Your task to perform on an android device: Open settings on Google Maps Image 0: 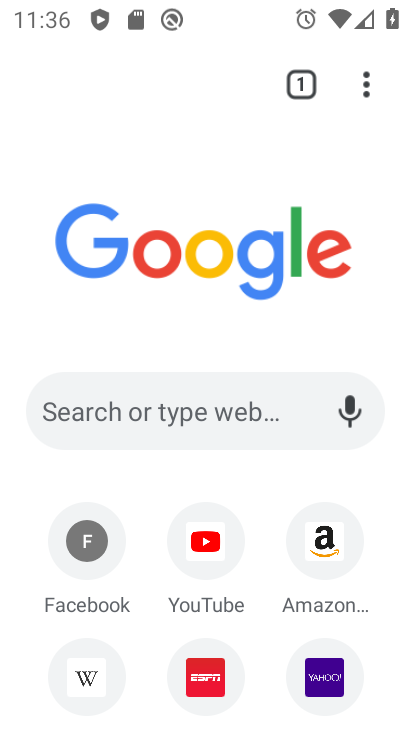
Step 0: press home button
Your task to perform on an android device: Open settings on Google Maps Image 1: 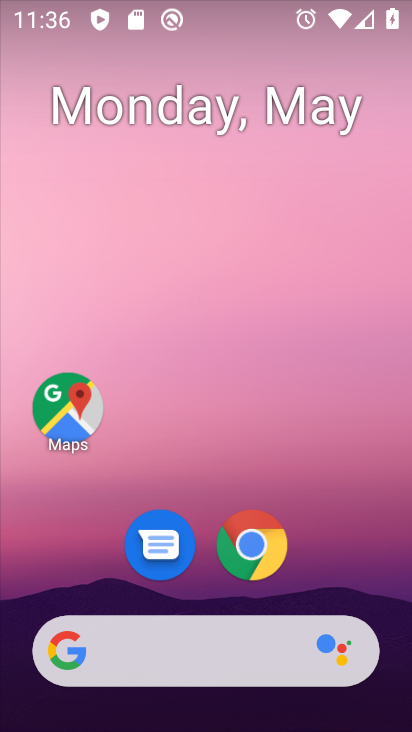
Step 1: click (82, 405)
Your task to perform on an android device: Open settings on Google Maps Image 2: 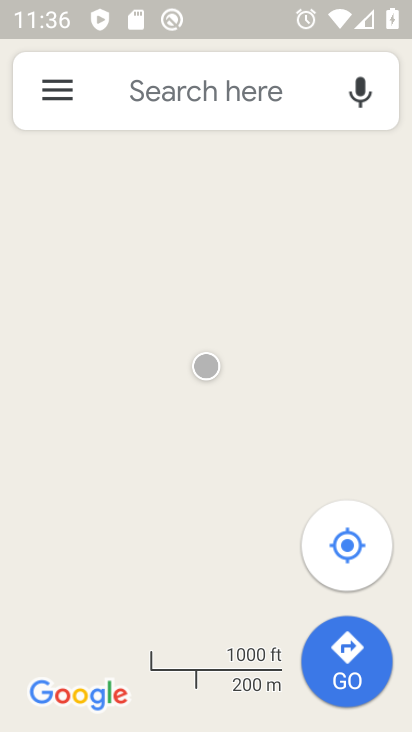
Step 2: click (54, 91)
Your task to perform on an android device: Open settings on Google Maps Image 3: 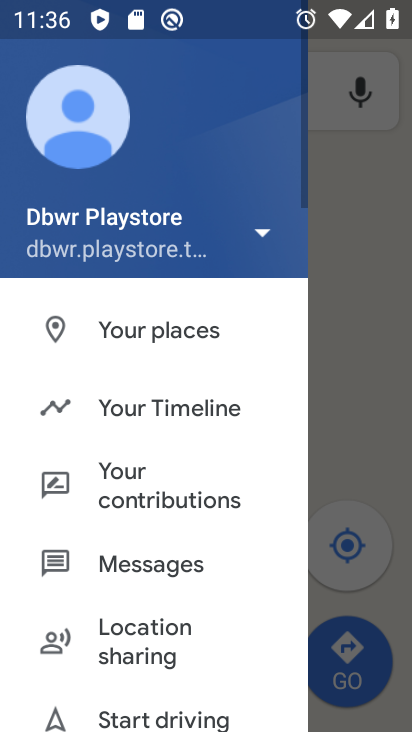
Step 3: drag from (149, 682) to (110, 343)
Your task to perform on an android device: Open settings on Google Maps Image 4: 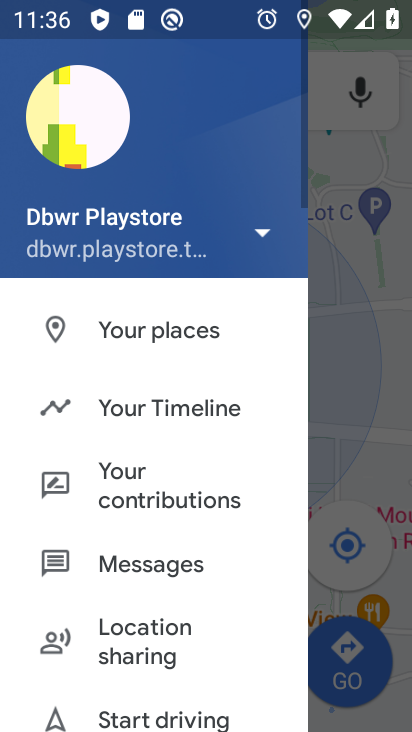
Step 4: drag from (147, 645) to (135, 346)
Your task to perform on an android device: Open settings on Google Maps Image 5: 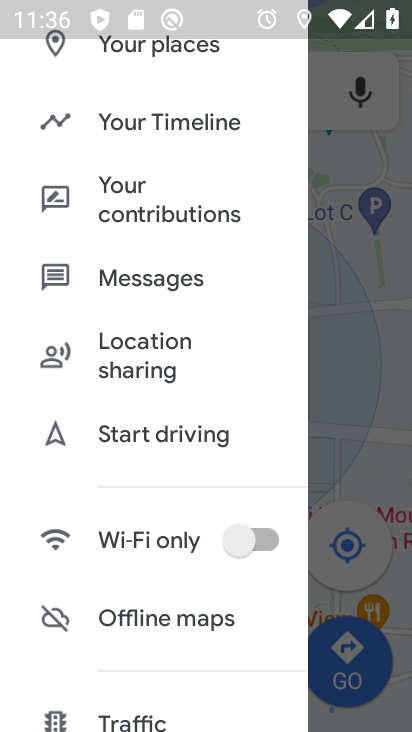
Step 5: drag from (128, 717) to (151, 272)
Your task to perform on an android device: Open settings on Google Maps Image 6: 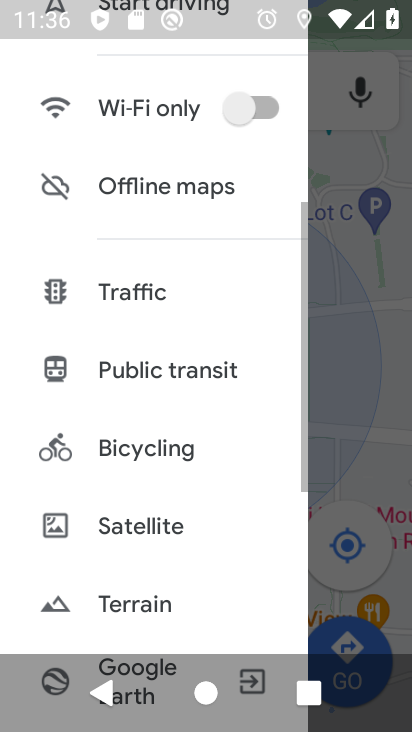
Step 6: drag from (170, 626) to (167, 244)
Your task to perform on an android device: Open settings on Google Maps Image 7: 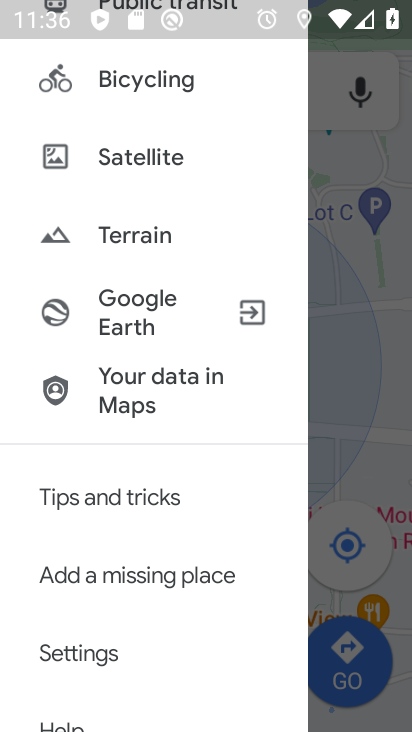
Step 7: click (86, 654)
Your task to perform on an android device: Open settings on Google Maps Image 8: 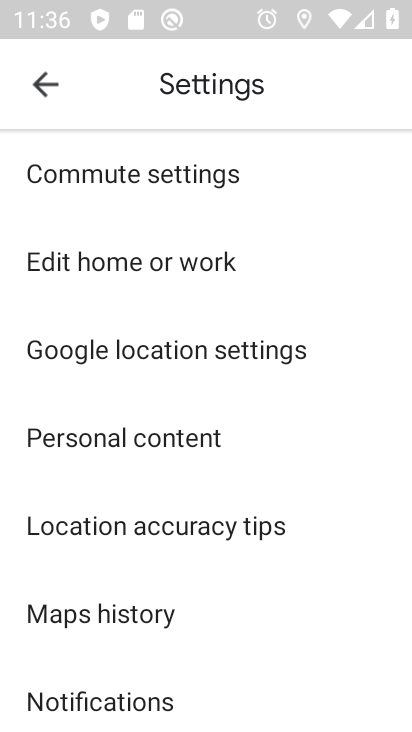
Step 8: task complete